Your task to perform on an android device: Open maps Image 0: 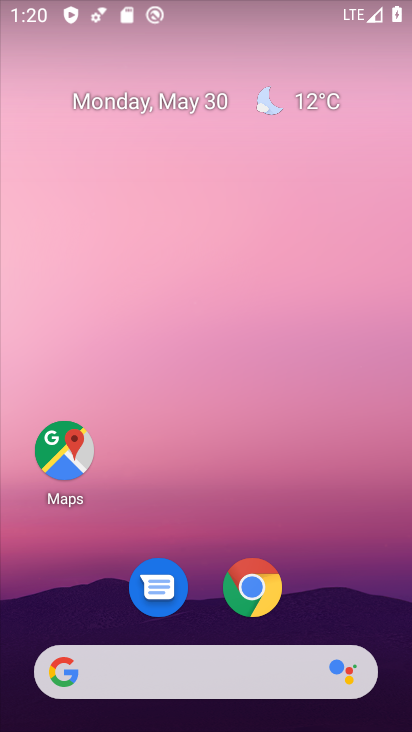
Step 0: click (52, 462)
Your task to perform on an android device: Open maps Image 1: 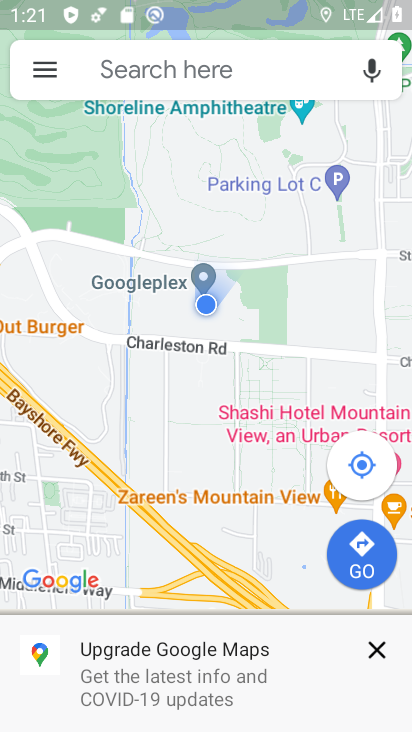
Step 1: task complete